Your task to perform on an android device: Go to Android settings Image 0: 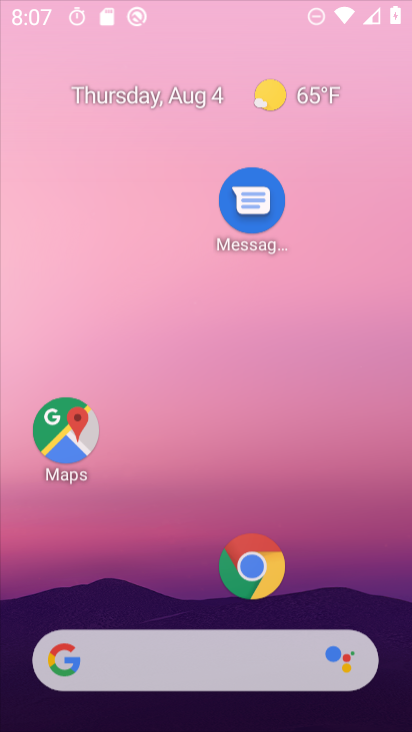
Step 0: press home button
Your task to perform on an android device: Go to Android settings Image 1: 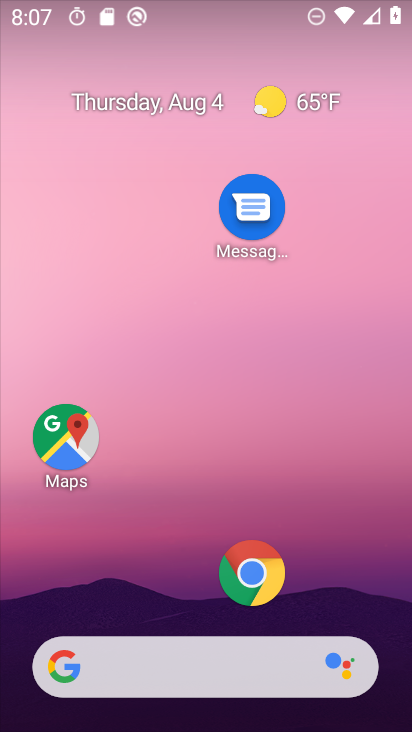
Step 1: drag from (188, 617) to (247, 123)
Your task to perform on an android device: Go to Android settings Image 2: 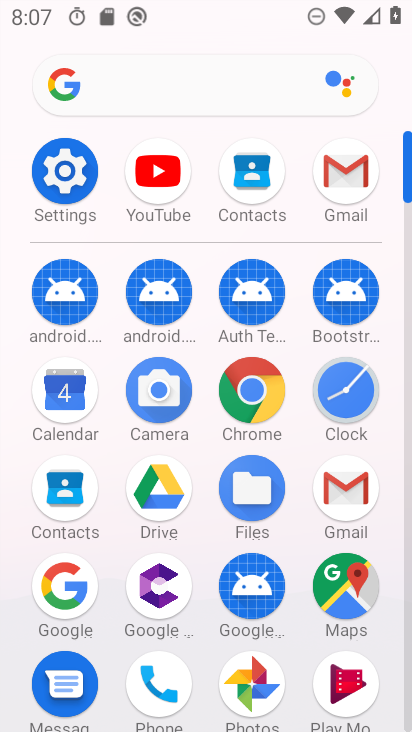
Step 2: click (51, 195)
Your task to perform on an android device: Go to Android settings Image 3: 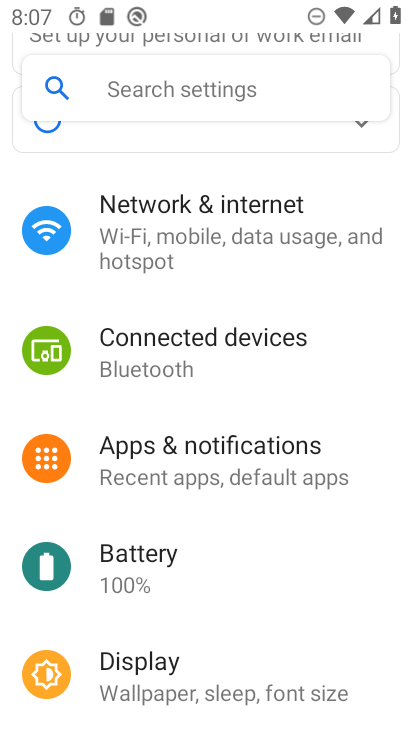
Step 3: task complete